Your task to perform on an android device: all mails in gmail Image 0: 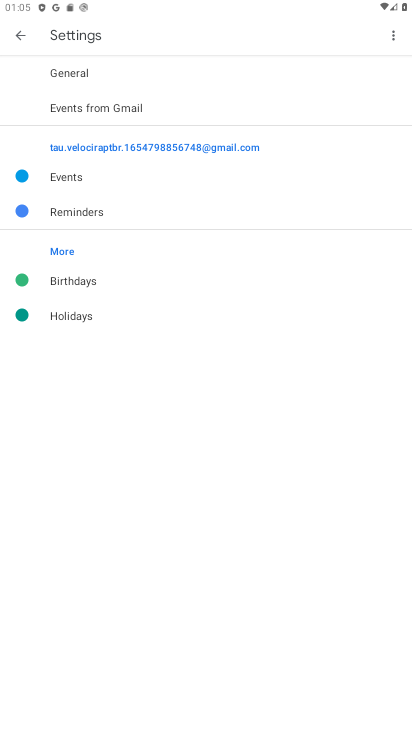
Step 0: press home button
Your task to perform on an android device: all mails in gmail Image 1: 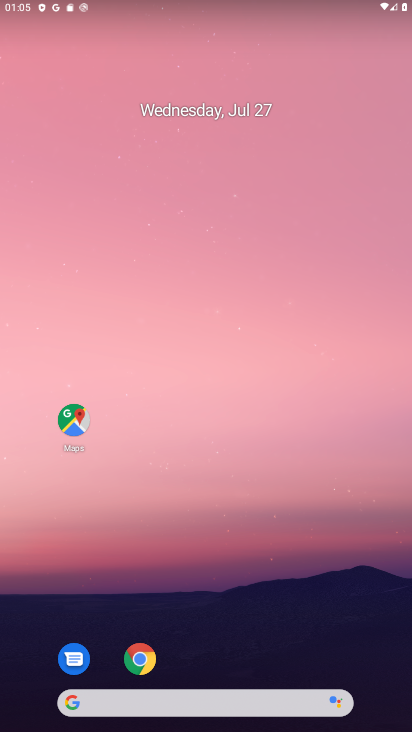
Step 1: drag from (301, 601) to (180, 206)
Your task to perform on an android device: all mails in gmail Image 2: 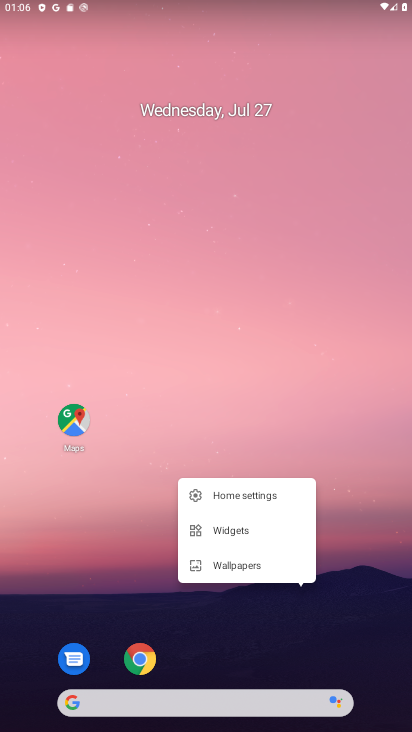
Step 2: click (260, 356)
Your task to perform on an android device: all mails in gmail Image 3: 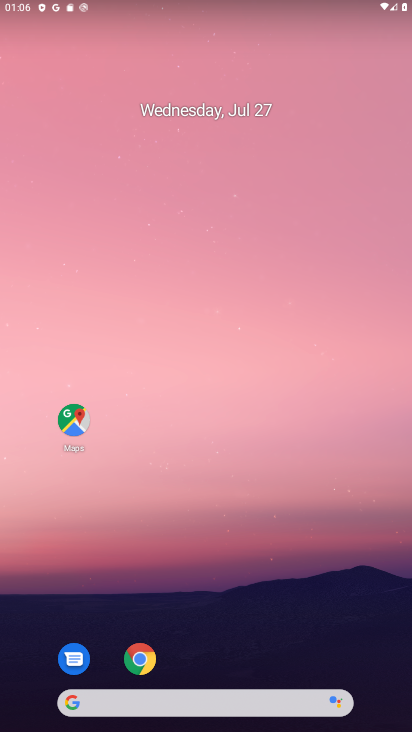
Step 3: drag from (318, 635) to (170, 43)
Your task to perform on an android device: all mails in gmail Image 4: 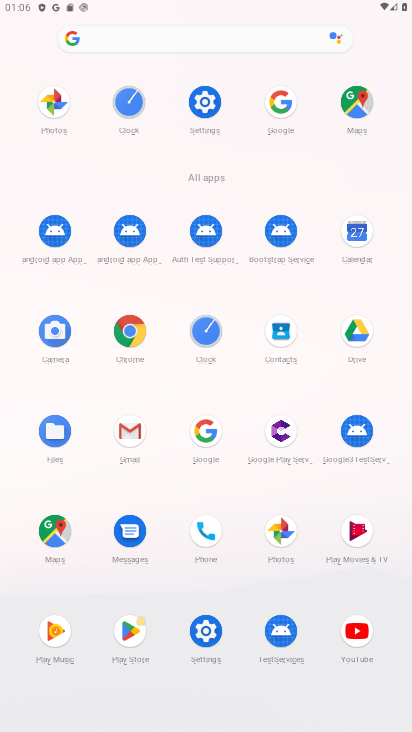
Step 4: click (138, 436)
Your task to perform on an android device: all mails in gmail Image 5: 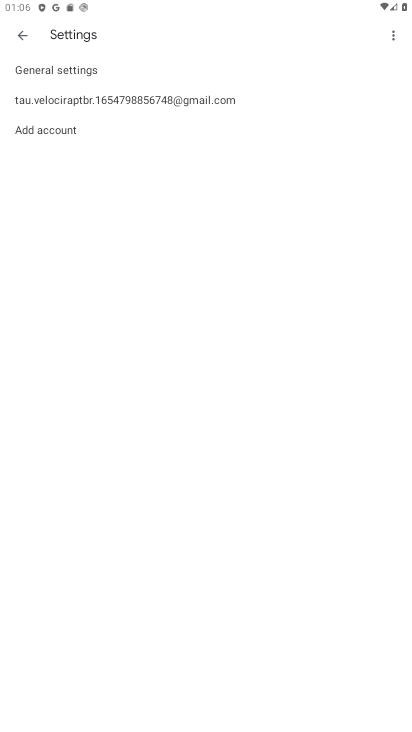
Step 5: click (138, 436)
Your task to perform on an android device: all mails in gmail Image 6: 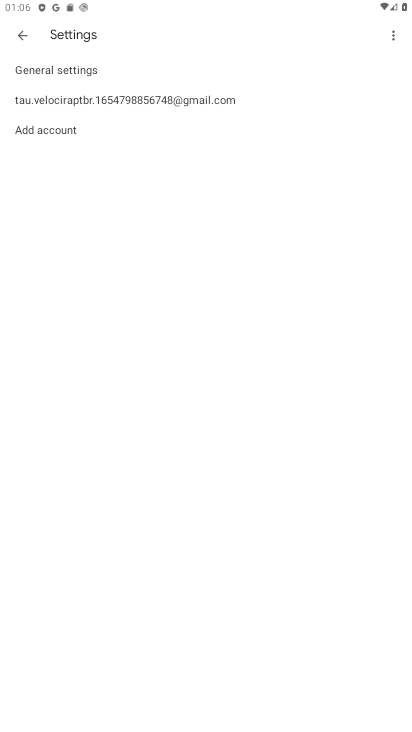
Step 6: click (21, 39)
Your task to perform on an android device: all mails in gmail Image 7: 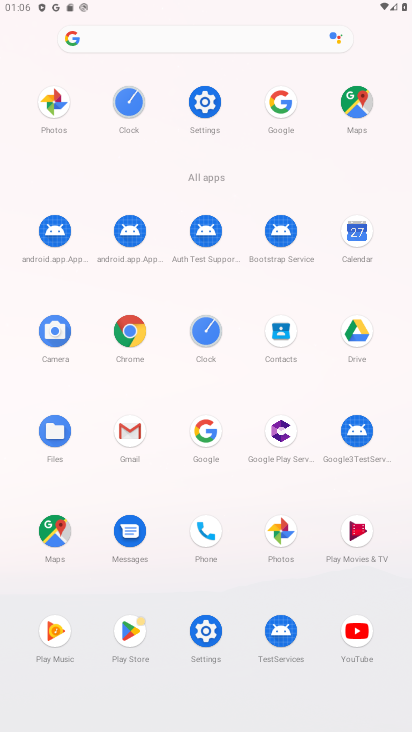
Step 7: click (128, 425)
Your task to perform on an android device: all mails in gmail Image 8: 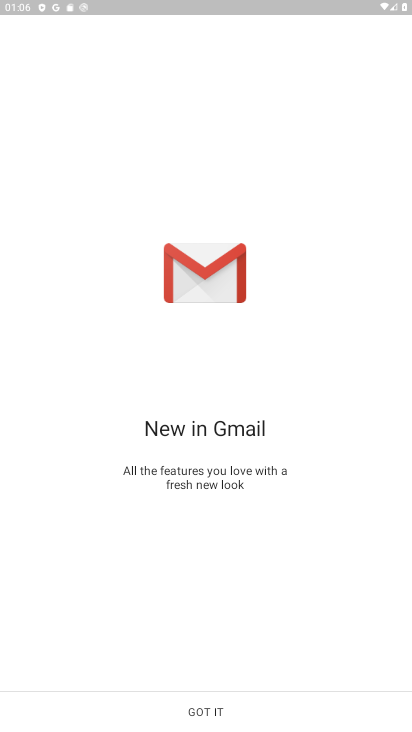
Step 8: click (262, 714)
Your task to perform on an android device: all mails in gmail Image 9: 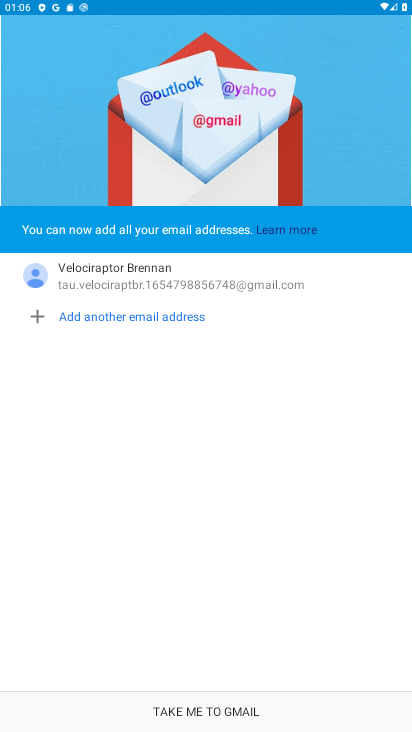
Step 9: click (262, 714)
Your task to perform on an android device: all mails in gmail Image 10: 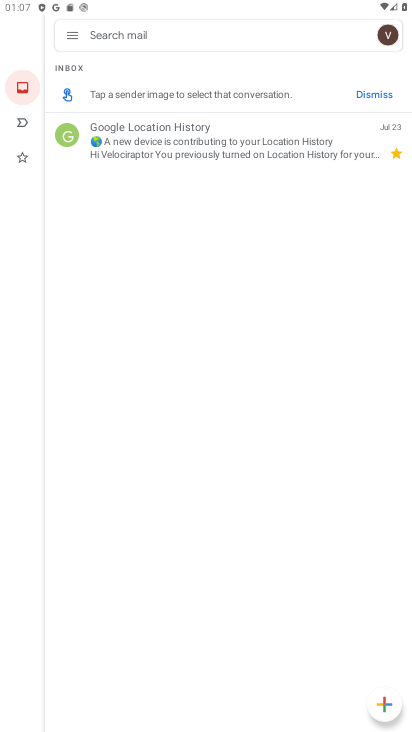
Step 10: task complete